Your task to perform on an android device: What's the weather going to be tomorrow? Image 0: 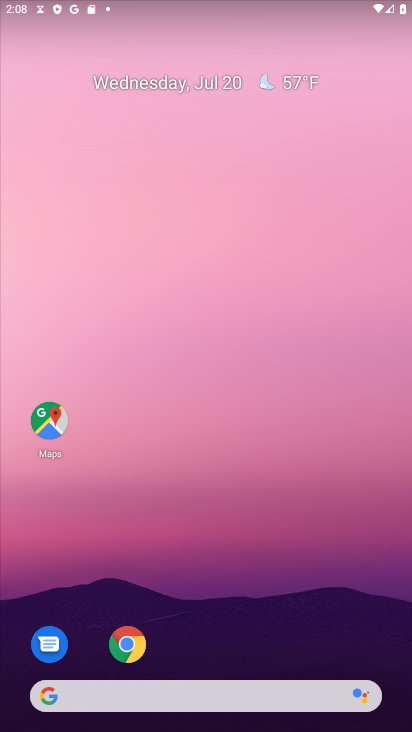
Step 0: press home button
Your task to perform on an android device: What's the weather going to be tomorrow? Image 1: 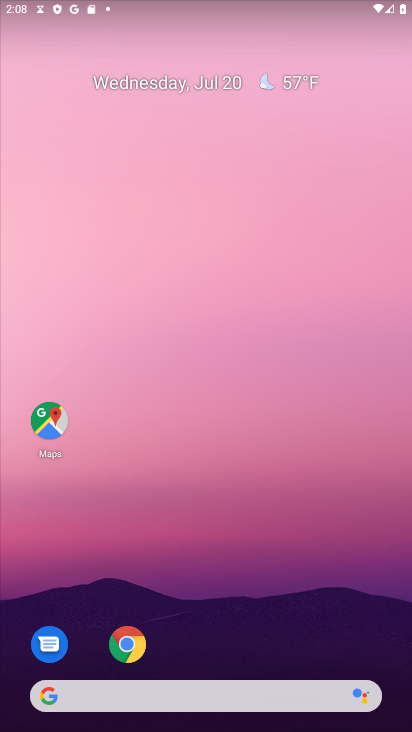
Step 1: click (49, 700)
Your task to perform on an android device: What's the weather going to be tomorrow? Image 2: 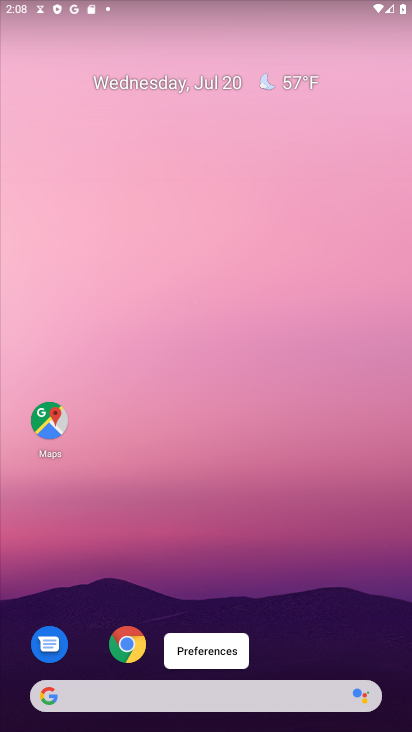
Step 2: click (43, 697)
Your task to perform on an android device: What's the weather going to be tomorrow? Image 3: 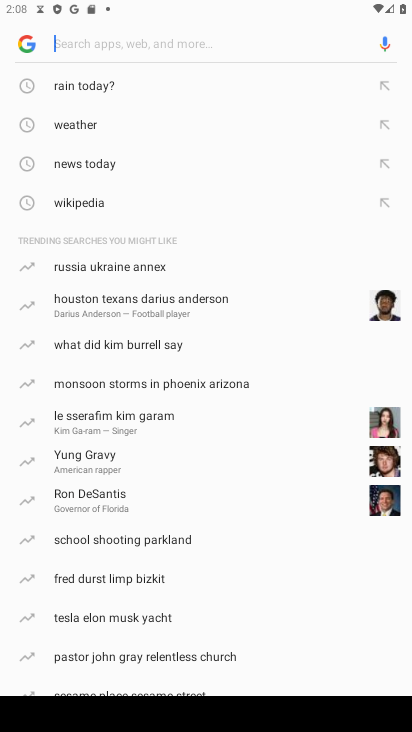
Step 3: type "weather going to be tomorrow?"
Your task to perform on an android device: What's the weather going to be tomorrow? Image 4: 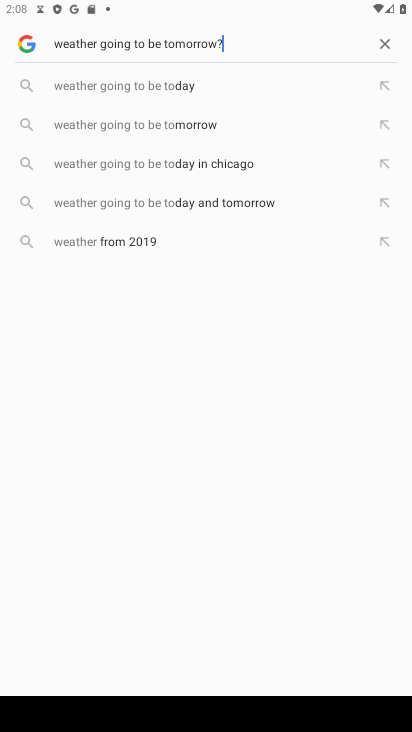
Step 4: press enter
Your task to perform on an android device: What's the weather going to be tomorrow? Image 5: 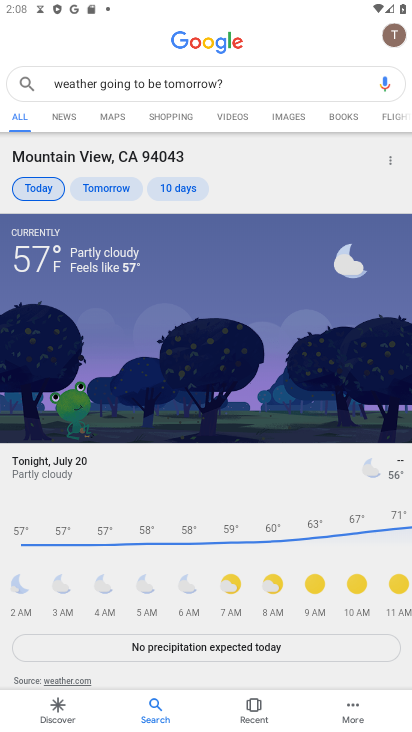
Step 5: task complete